Your task to perform on an android device: open chrome and create a bookmark for the current page Image 0: 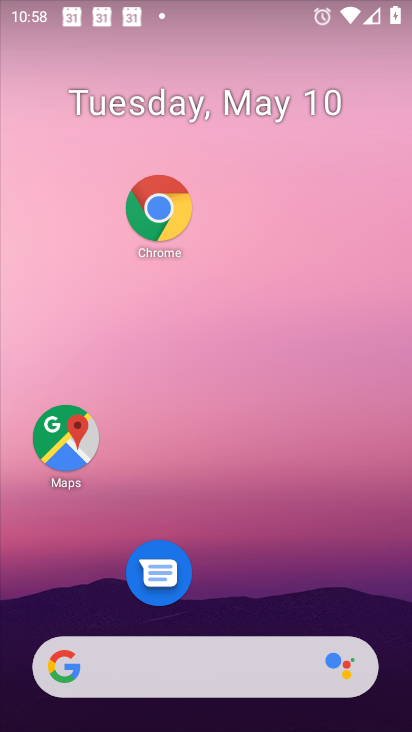
Step 0: drag from (252, 689) to (310, 156)
Your task to perform on an android device: open chrome and create a bookmark for the current page Image 1: 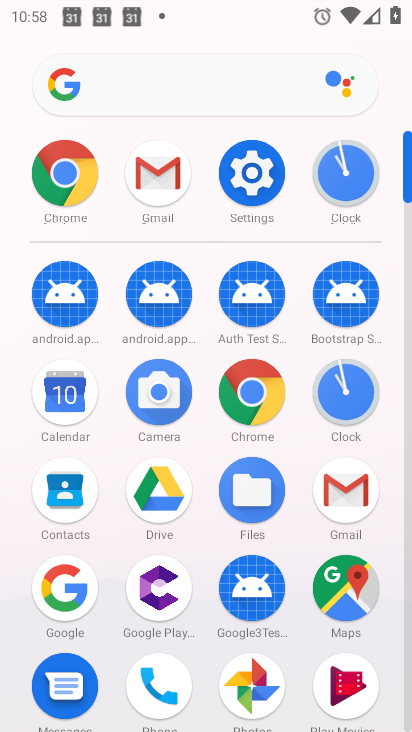
Step 1: click (71, 176)
Your task to perform on an android device: open chrome and create a bookmark for the current page Image 2: 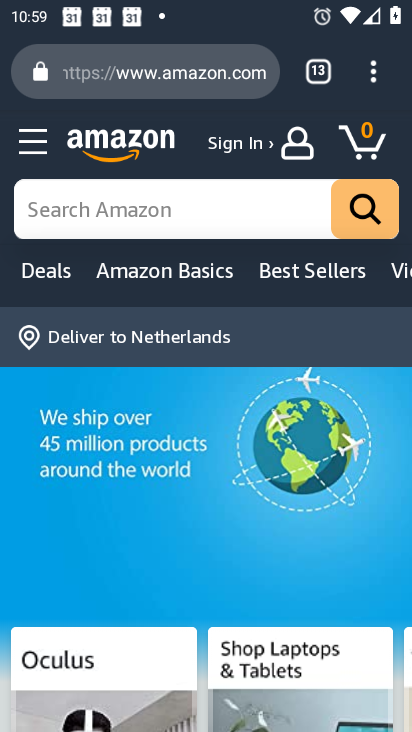
Step 2: click (367, 88)
Your task to perform on an android device: open chrome and create a bookmark for the current page Image 3: 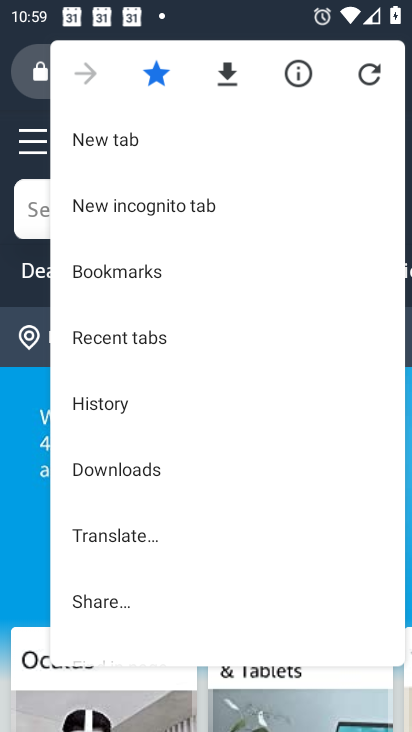
Step 3: drag from (174, 495) to (175, 448)
Your task to perform on an android device: open chrome and create a bookmark for the current page Image 4: 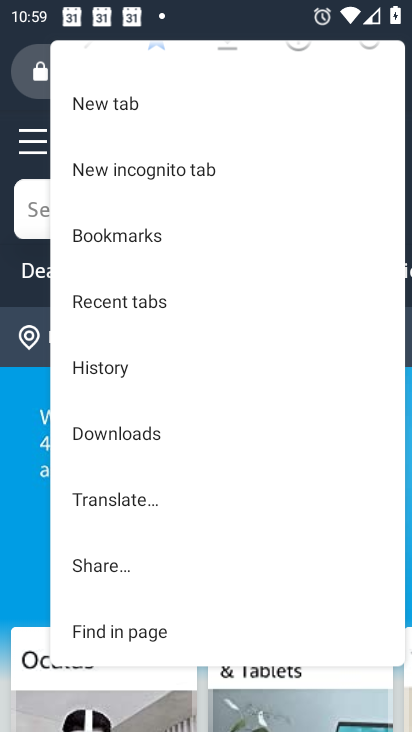
Step 4: click (140, 233)
Your task to perform on an android device: open chrome and create a bookmark for the current page Image 5: 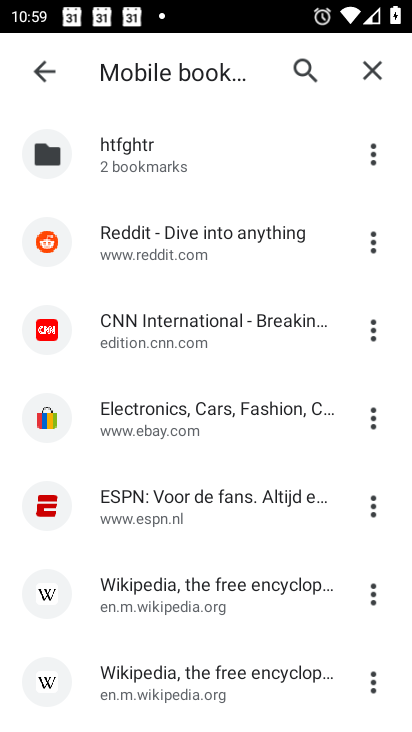
Step 5: task complete